Your task to perform on an android device: add a contact Image 0: 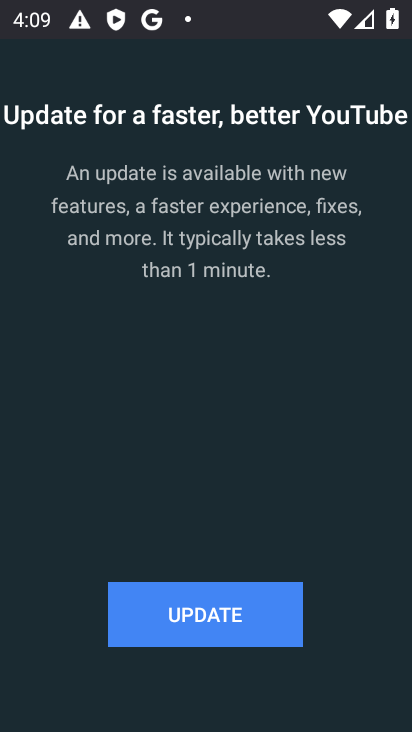
Step 0: press home button
Your task to perform on an android device: add a contact Image 1: 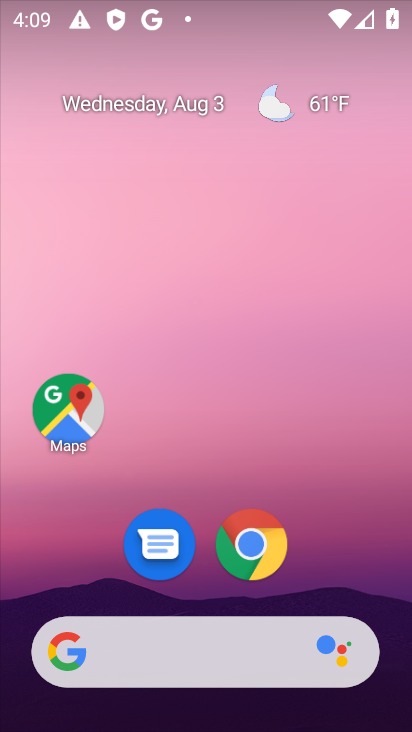
Step 1: drag from (326, 578) to (328, 89)
Your task to perform on an android device: add a contact Image 2: 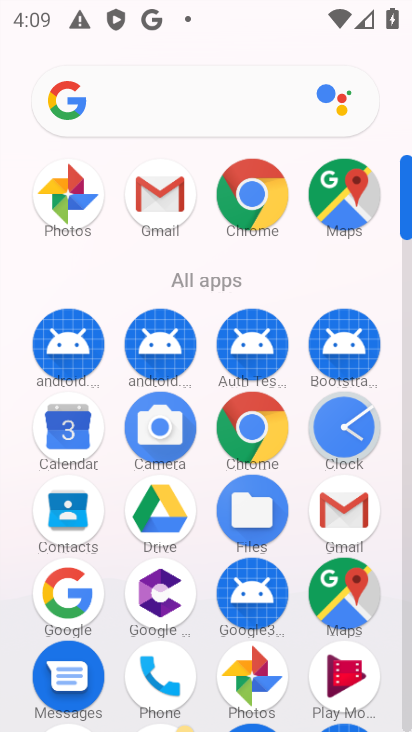
Step 2: click (60, 511)
Your task to perform on an android device: add a contact Image 3: 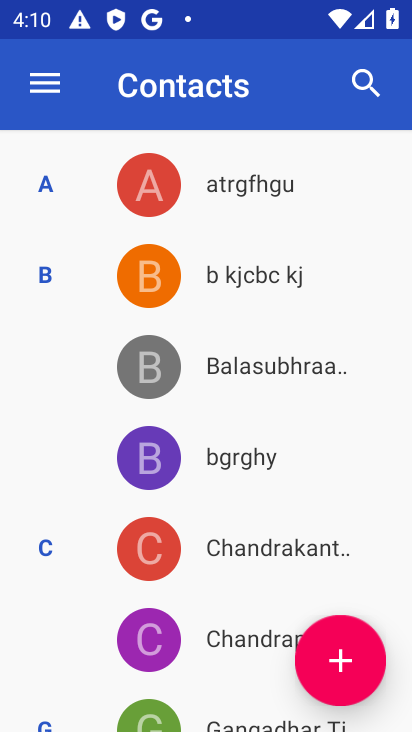
Step 3: click (338, 663)
Your task to perform on an android device: add a contact Image 4: 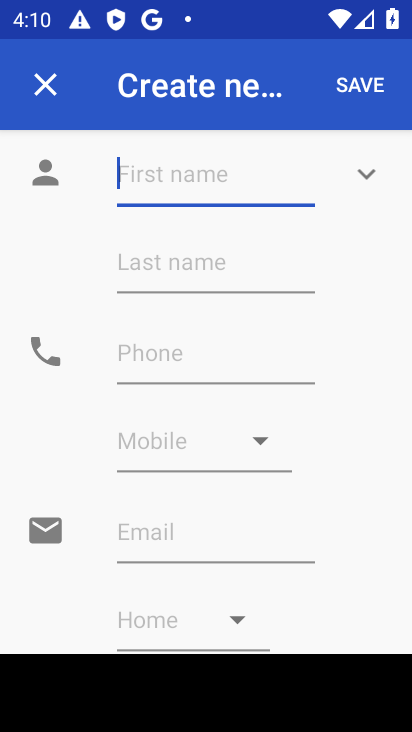
Step 4: type "njnb"
Your task to perform on an android device: add a contact Image 5: 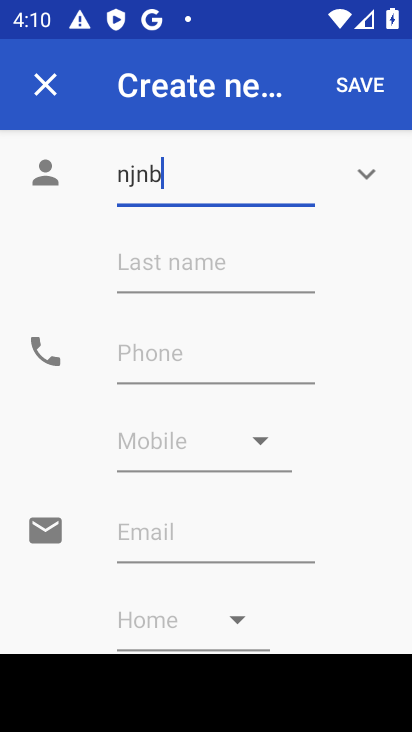
Step 5: click (247, 363)
Your task to perform on an android device: add a contact Image 6: 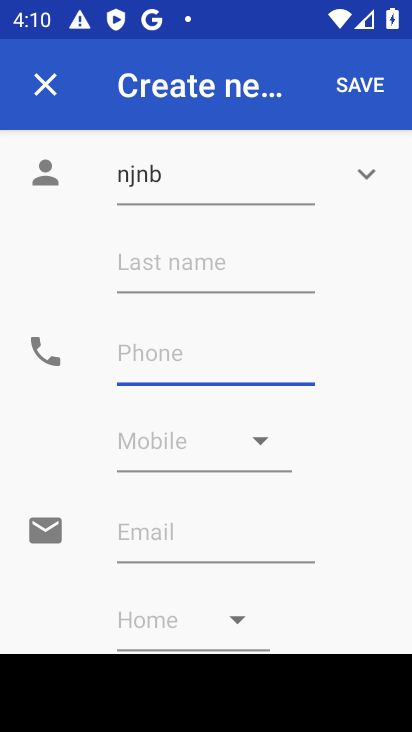
Step 6: type "0758"
Your task to perform on an android device: add a contact Image 7: 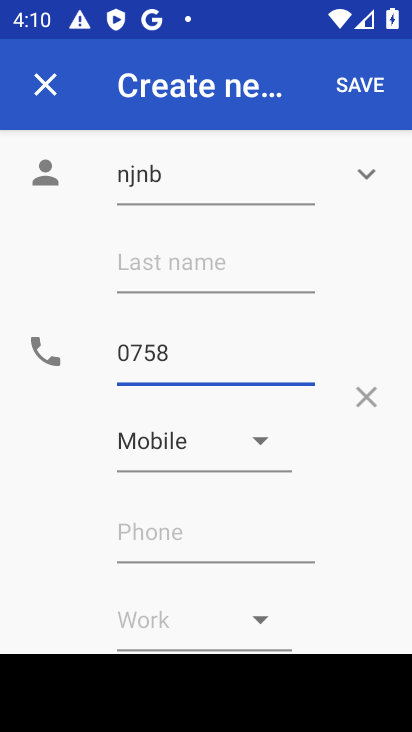
Step 7: click (350, 73)
Your task to perform on an android device: add a contact Image 8: 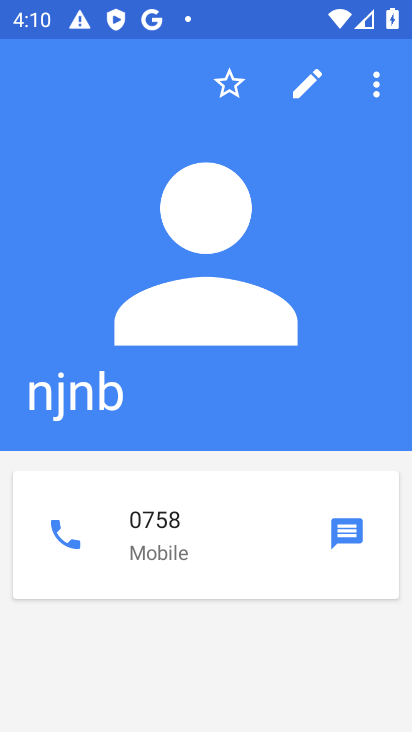
Step 8: task complete